Your task to perform on an android device: set default search engine in the chrome app Image 0: 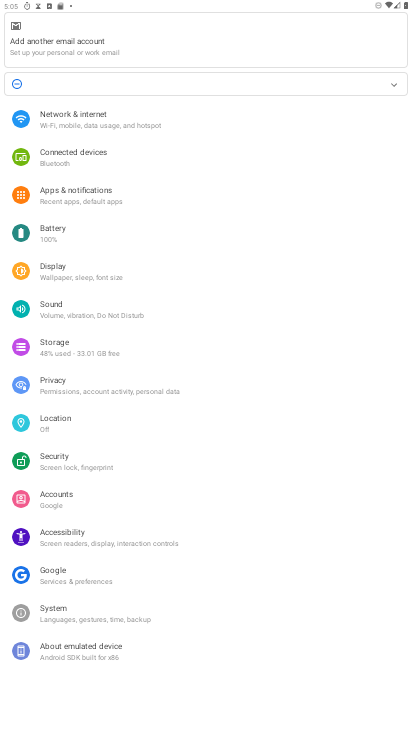
Step 0: press home button
Your task to perform on an android device: set default search engine in the chrome app Image 1: 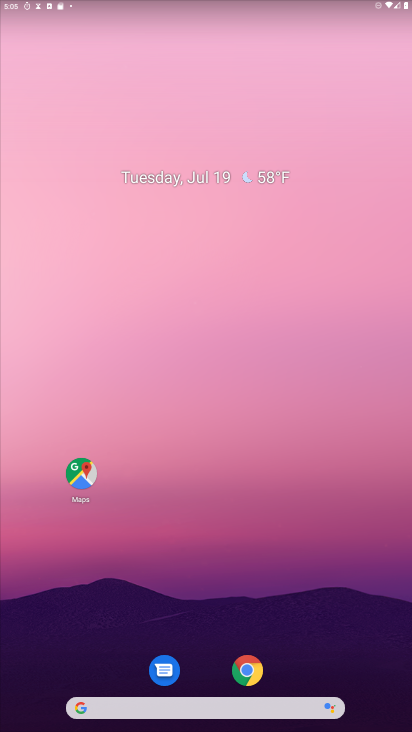
Step 1: drag from (215, 701) to (240, 0)
Your task to perform on an android device: set default search engine in the chrome app Image 2: 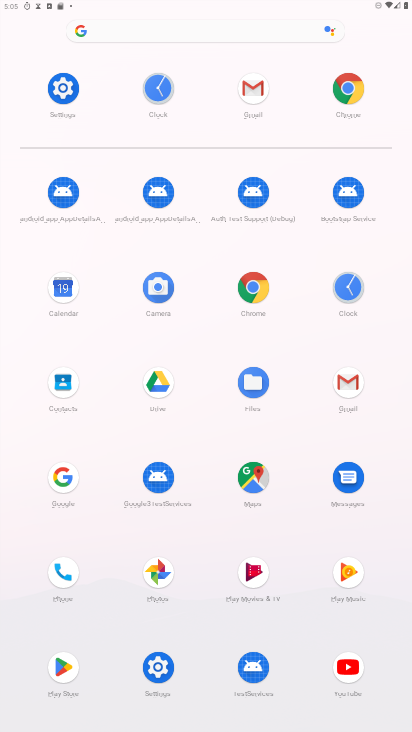
Step 2: click (253, 282)
Your task to perform on an android device: set default search engine in the chrome app Image 3: 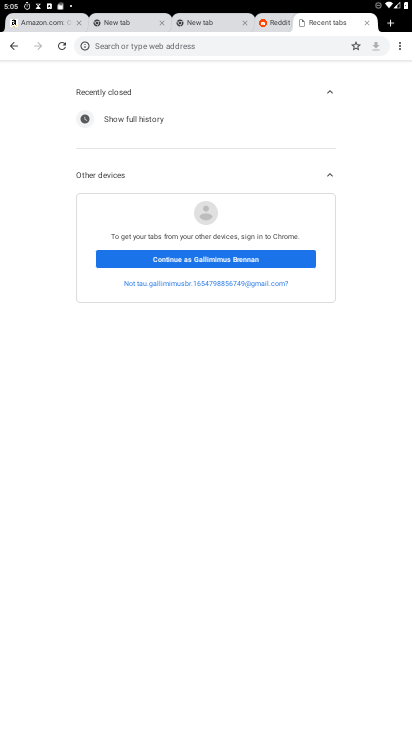
Step 3: drag from (403, 37) to (323, 203)
Your task to perform on an android device: set default search engine in the chrome app Image 4: 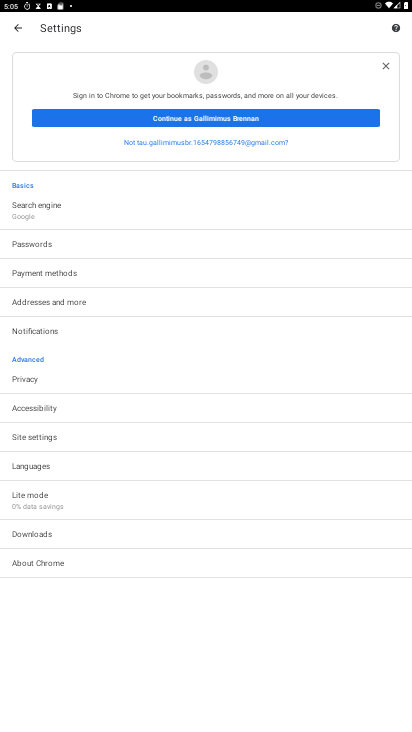
Step 4: click (58, 214)
Your task to perform on an android device: set default search engine in the chrome app Image 5: 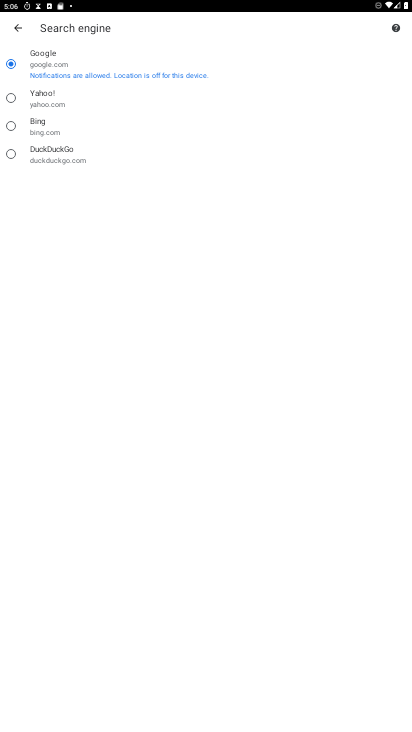
Step 5: task complete